Your task to perform on an android device: turn on priority inbox in the gmail app Image 0: 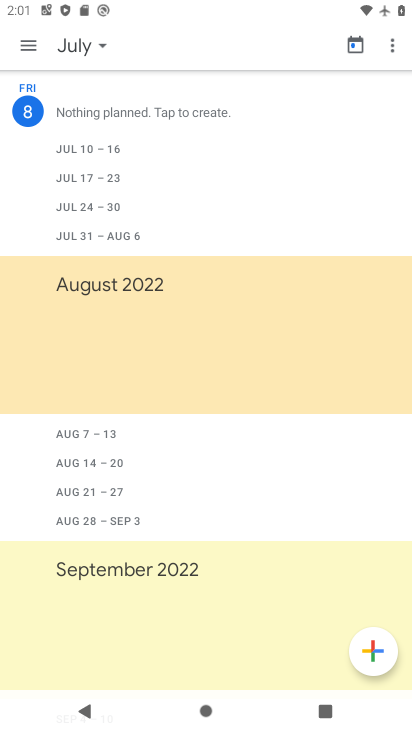
Step 0: press back button
Your task to perform on an android device: turn on priority inbox in the gmail app Image 1: 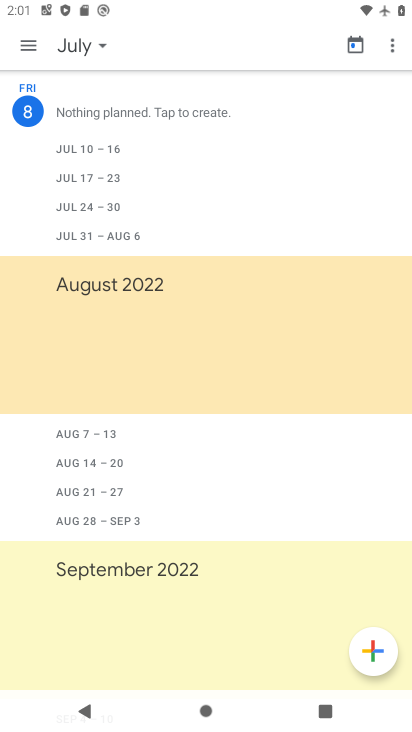
Step 1: press home button
Your task to perform on an android device: turn on priority inbox in the gmail app Image 2: 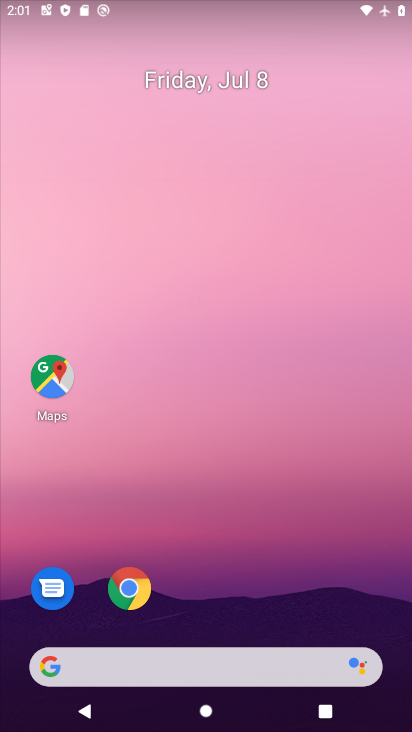
Step 2: drag from (218, 622) to (122, 144)
Your task to perform on an android device: turn on priority inbox in the gmail app Image 3: 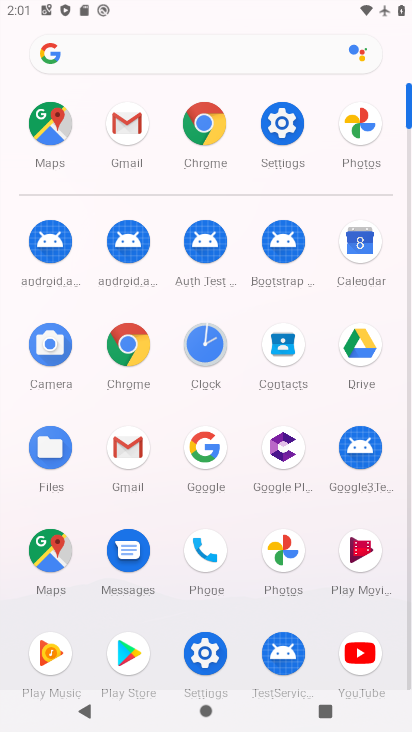
Step 3: click (125, 132)
Your task to perform on an android device: turn on priority inbox in the gmail app Image 4: 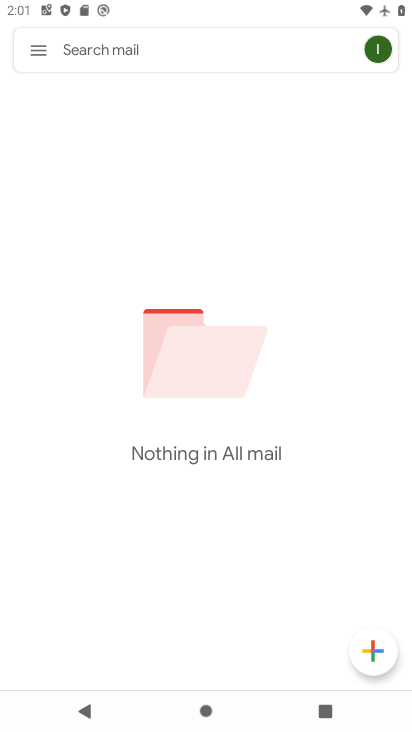
Step 4: click (41, 49)
Your task to perform on an android device: turn on priority inbox in the gmail app Image 5: 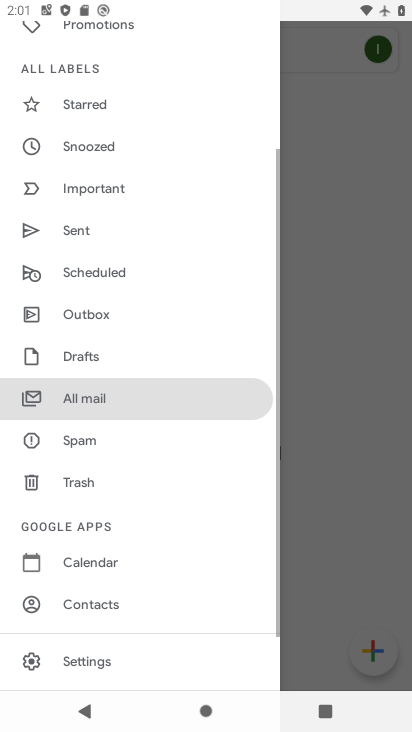
Step 5: click (84, 658)
Your task to perform on an android device: turn on priority inbox in the gmail app Image 6: 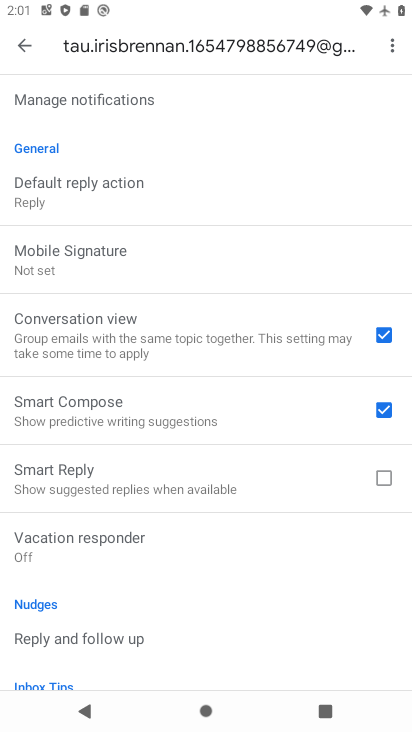
Step 6: drag from (215, 152) to (221, 652)
Your task to perform on an android device: turn on priority inbox in the gmail app Image 7: 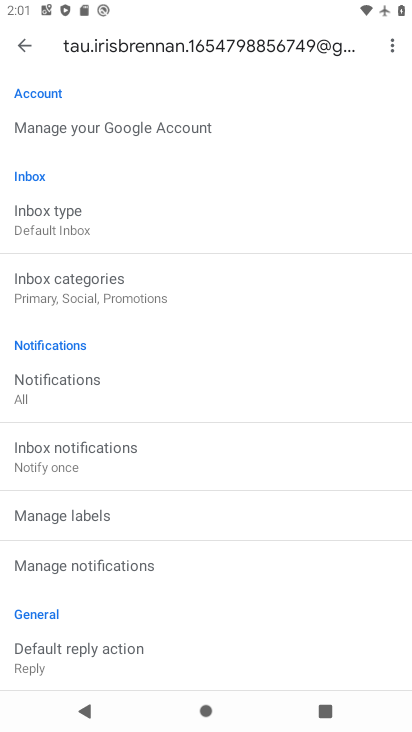
Step 7: click (55, 222)
Your task to perform on an android device: turn on priority inbox in the gmail app Image 8: 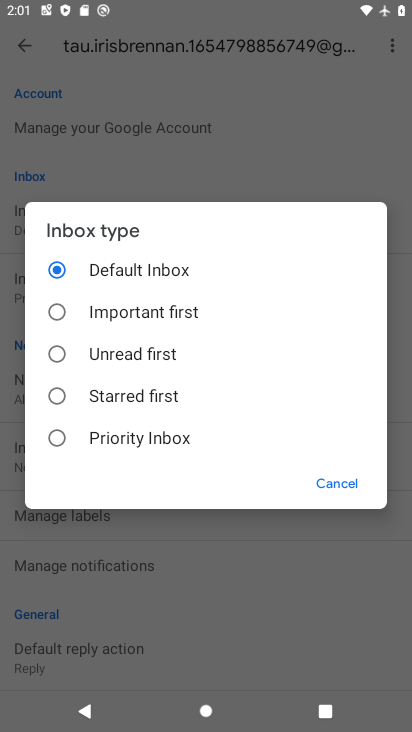
Step 8: click (62, 438)
Your task to perform on an android device: turn on priority inbox in the gmail app Image 9: 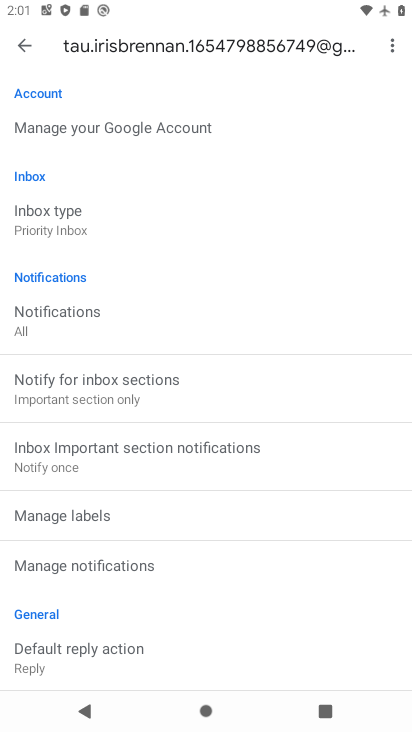
Step 9: task complete